Your task to perform on an android device: change alarm snooze length Image 0: 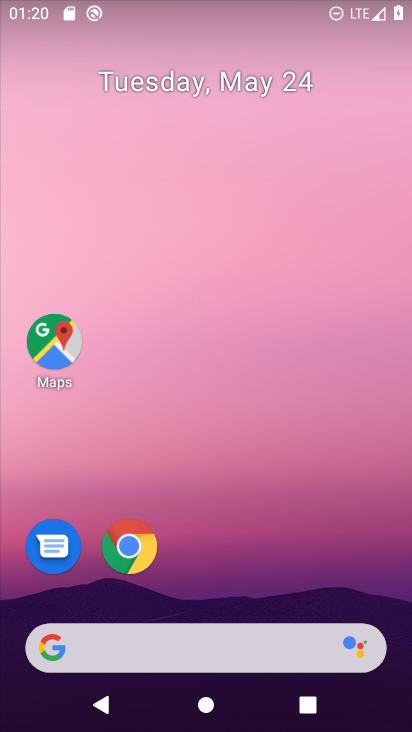
Step 0: drag from (308, 652) to (281, 0)
Your task to perform on an android device: change alarm snooze length Image 1: 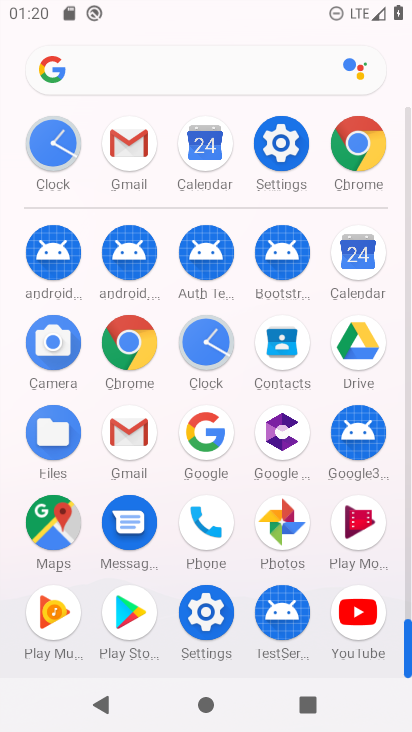
Step 1: click (272, 136)
Your task to perform on an android device: change alarm snooze length Image 2: 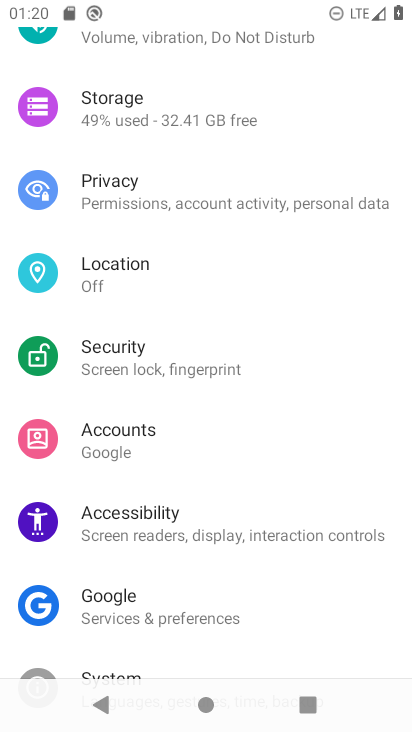
Step 2: drag from (288, 234) to (321, 715)
Your task to perform on an android device: change alarm snooze length Image 3: 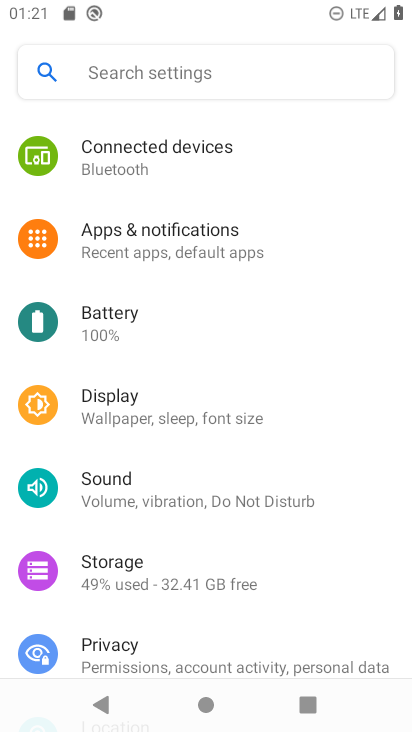
Step 3: press home button
Your task to perform on an android device: change alarm snooze length Image 4: 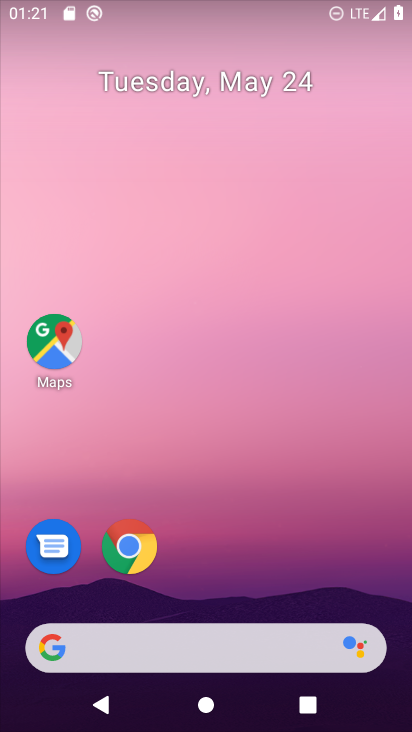
Step 4: drag from (310, 662) to (300, 69)
Your task to perform on an android device: change alarm snooze length Image 5: 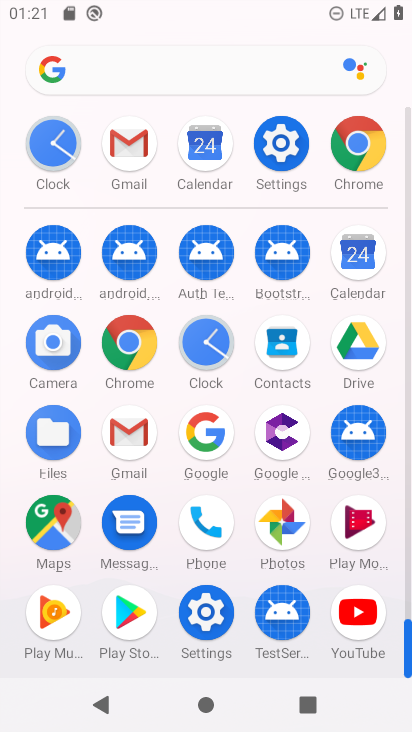
Step 5: click (213, 361)
Your task to perform on an android device: change alarm snooze length Image 6: 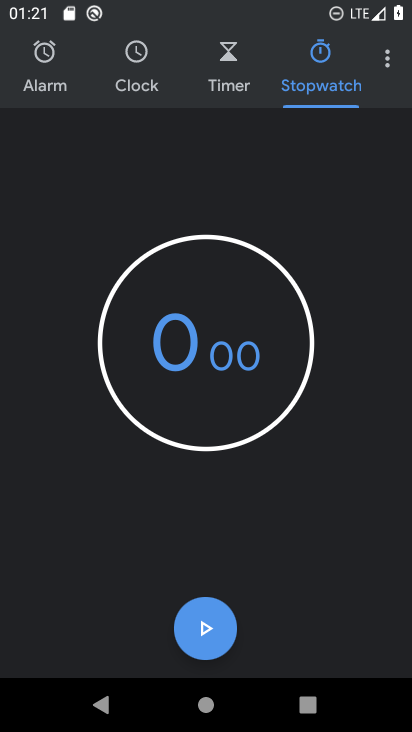
Step 6: click (387, 64)
Your task to perform on an android device: change alarm snooze length Image 7: 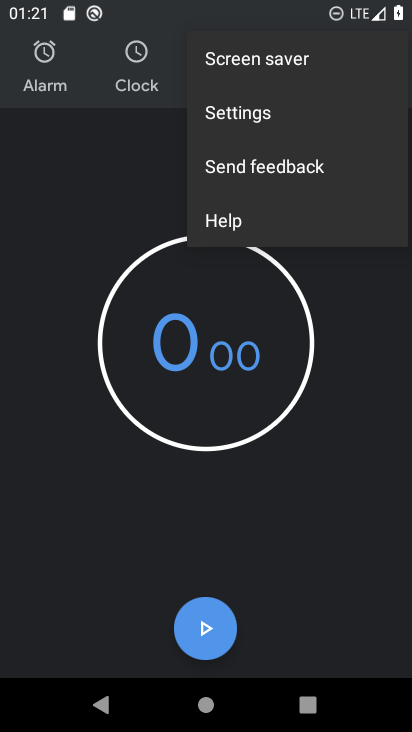
Step 7: click (285, 123)
Your task to perform on an android device: change alarm snooze length Image 8: 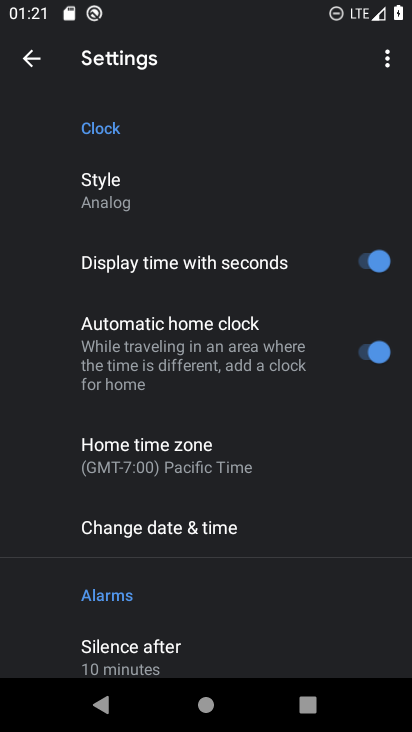
Step 8: drag from (235, 675) to (258, 156)
Your task to perform on an android device: change alarm snooze length Image 9: 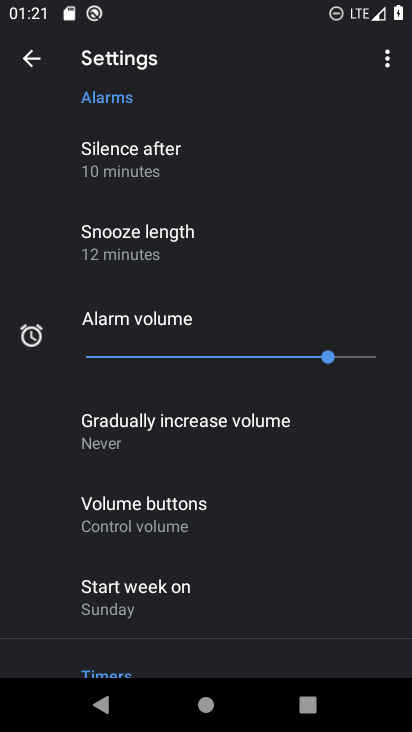
Step 9: click (158, 253)
Your task to perform on an android device: change alarm snooze length Image 10: 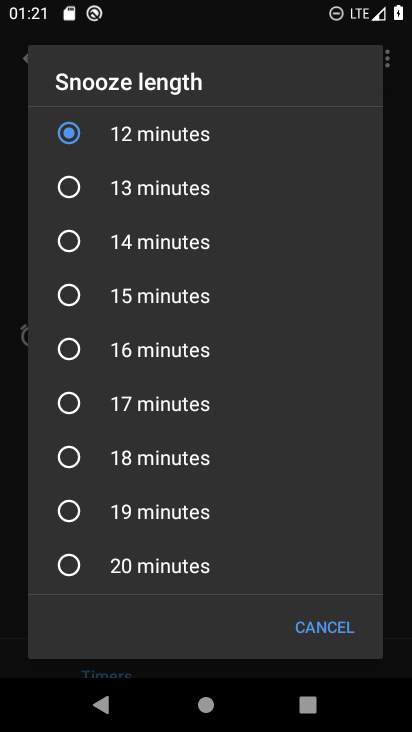
Step 10: click (66, 184)
Your task to perform on an android device: change alarm snooze length Image 11: 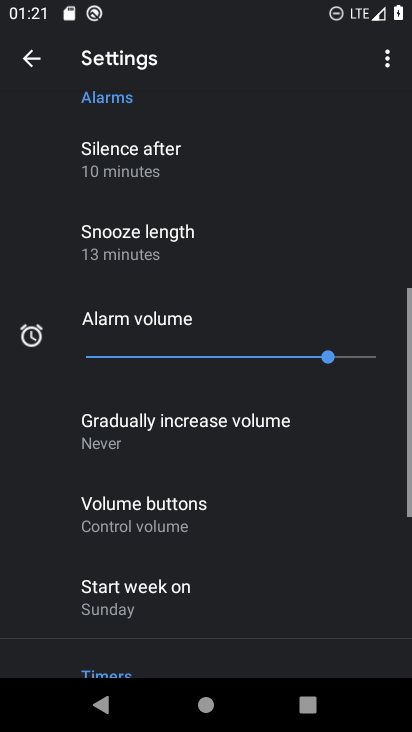
Step 11: task complete